Your task to perform on an android device: Go to Google Image 0: 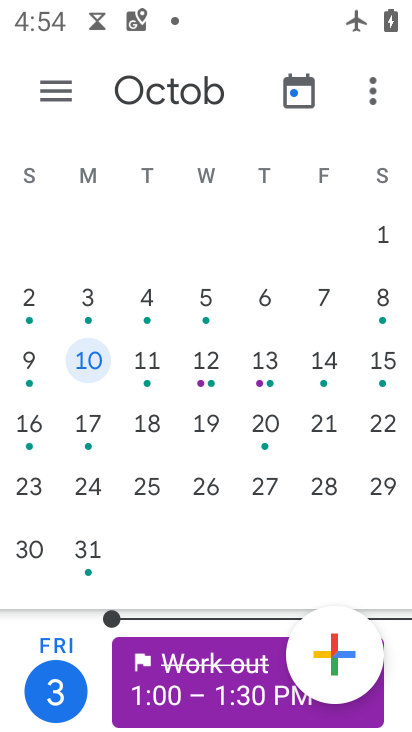
Step 0: drag from (362, 507) to (362, 142)
Your task to perform on an android device: Go to Google Image 1: 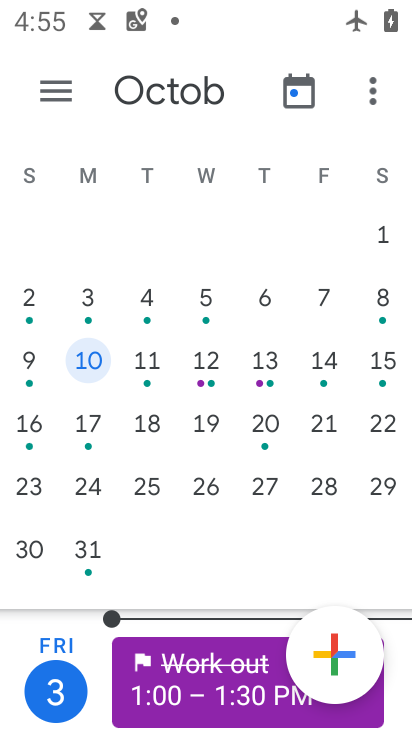
Step 1: press home button
Your task to perform on an android device: Go to Google Image 2: 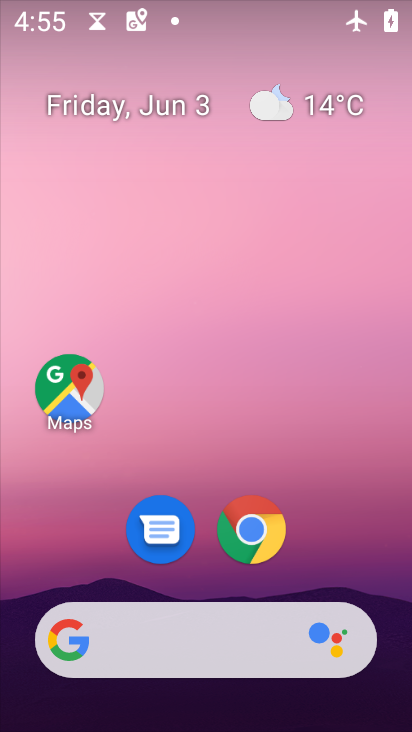
Step 2: drag from (319, 564) to (315, 43)
Your task to perform on an android device: Go to Google Image 3: 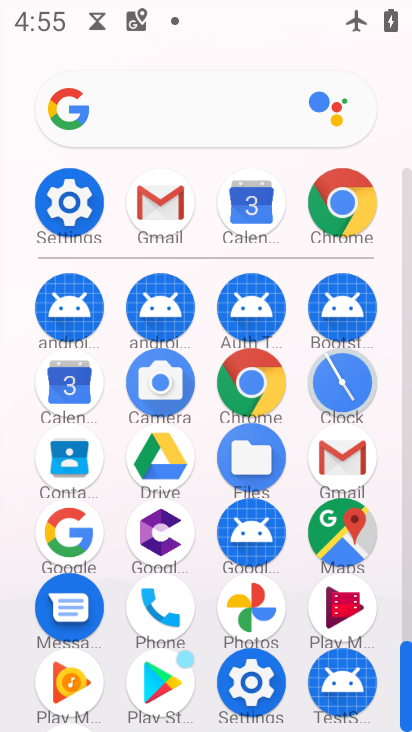
Step 3: click (52, 526)
Your task to perform on an android device: Go to Google Image 4: 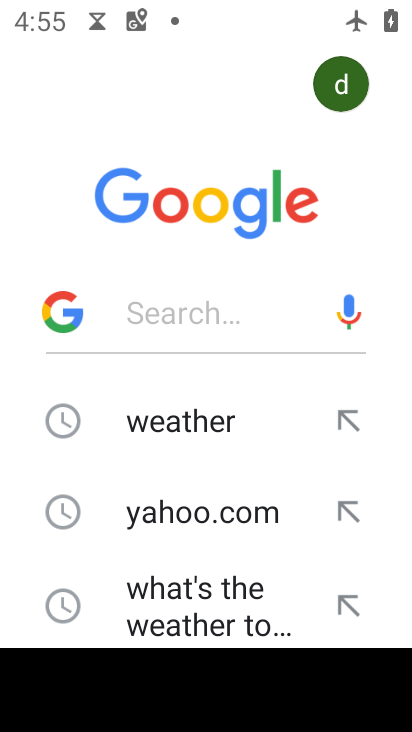
Step 4: task complete